Your task to perform on an android device: turn on translation in the chrome app Image 0: 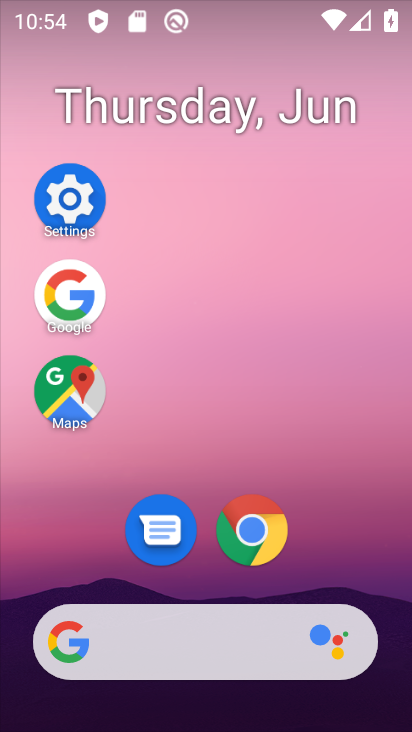
Step 0: click (271, 544)
Your task to perform on an android device: turn on translation in the chrome app Image 1: 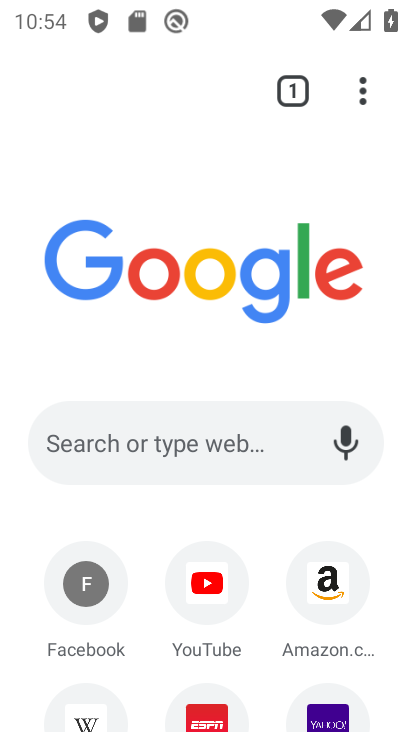
Step 1: click (361, 89)
Your task to perform on an android device: turn on translation in the chrome app Image 2: 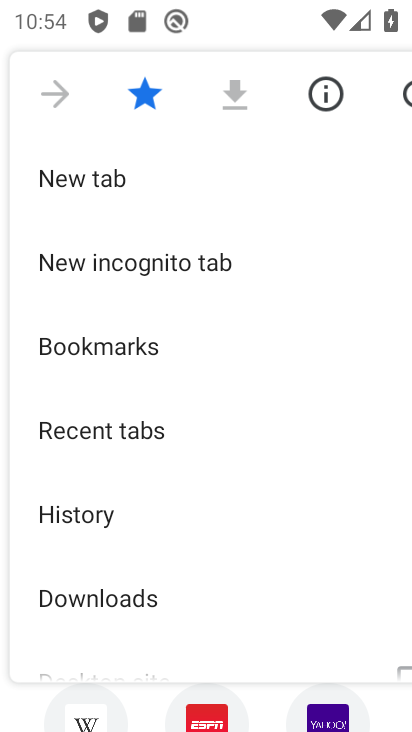
Step 2: drag from (257, 354) to (237, 80)
Your task to perform on an android device: turn on translation in the chrome app Image 3: 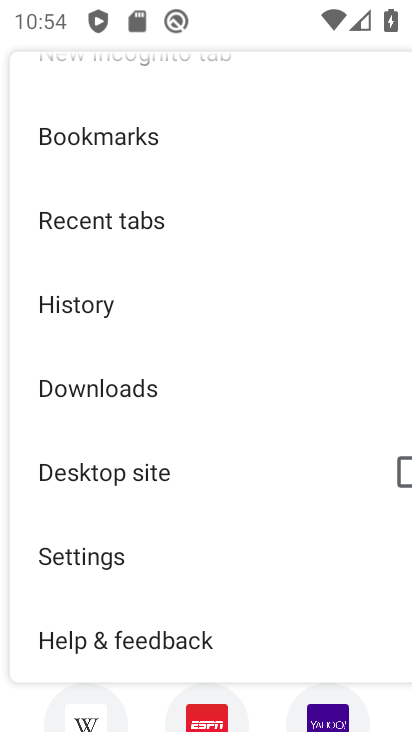
Step 3: click (175, 567)
Your task to perform on an android device: turn on translation in the chrome app Image 4: 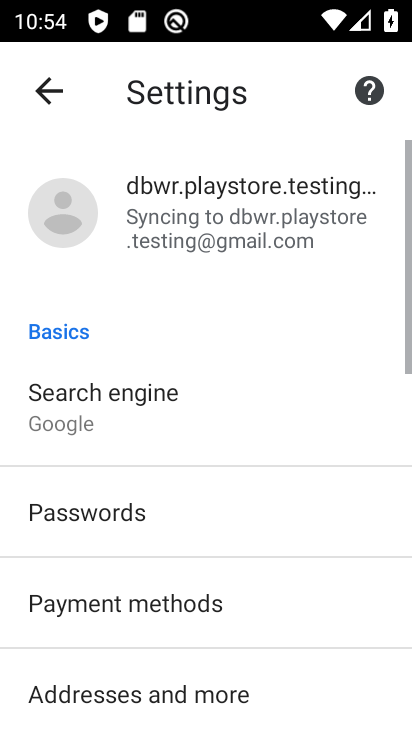
Step 4: drag from (177, 569) to (203, 200)
Your task to perform on an android device: turn on translation in the chrome app Image 5: 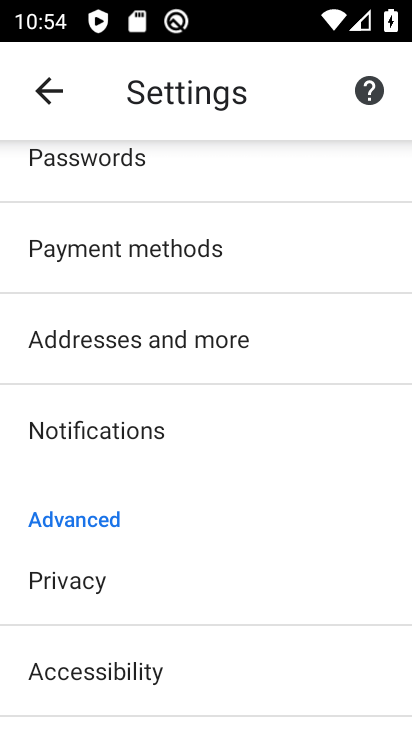
Step 5: drag from (207, 581) to (215, 204)
Your task to perform on an android device: turn on translation in the chrome app Image 6: 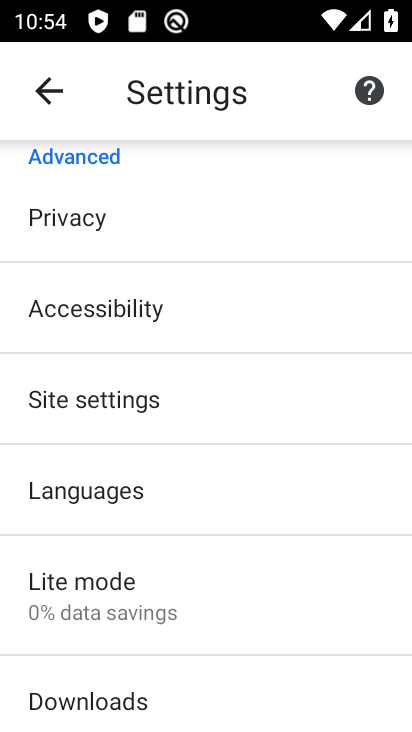
Step 6: click (175, 492)
Your task to perform on an android device: turn on translation in the chrome app Image 7: 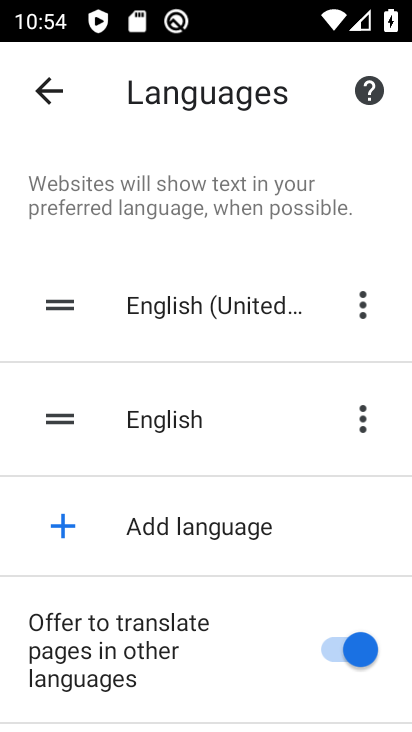
Step 7: task complete